Your task to perform on an android device: Open Google Maps Image 0: 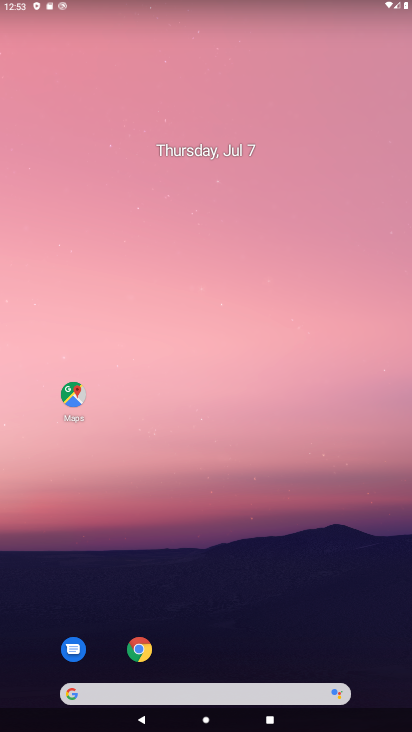
Step 0: press home button
Your task to perform on an android device: Open Google Maps Image 1: 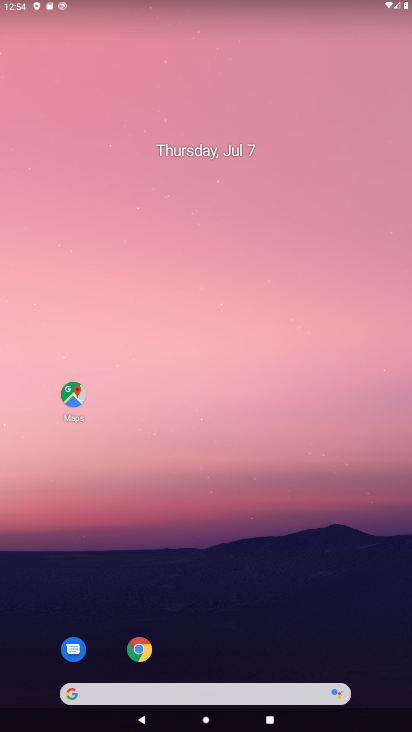
Step 1: click (70, 391)
Your task to perform on an android device: Open Google Maps Image 2: 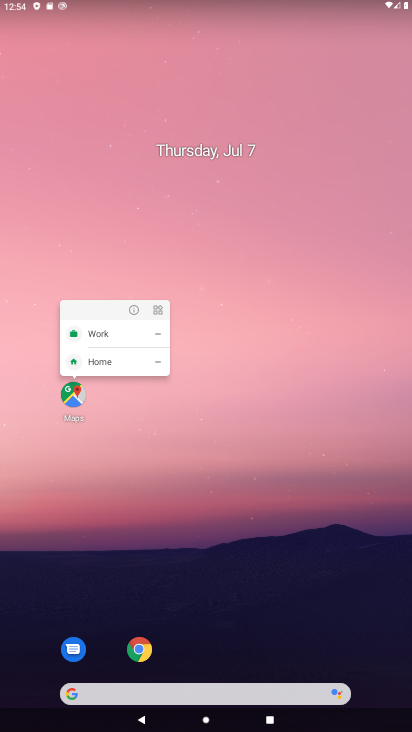
Step 2: click (70, 391)
Your task to perform on an android device: Open Google Maps Image 3: 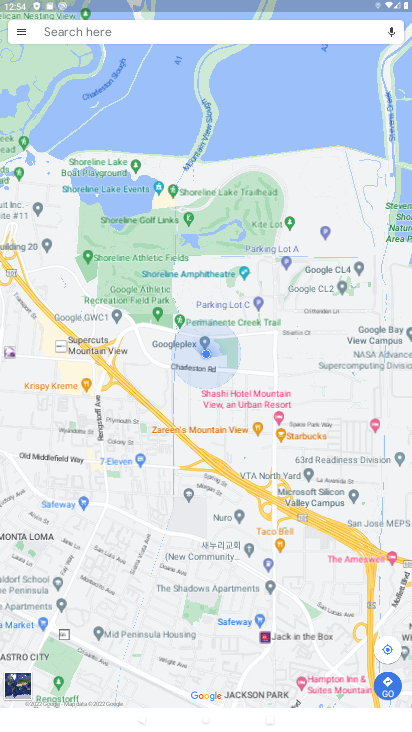
Step 3: task complete